Your task to perform on an android device: open app "AliExpress" Image 0: 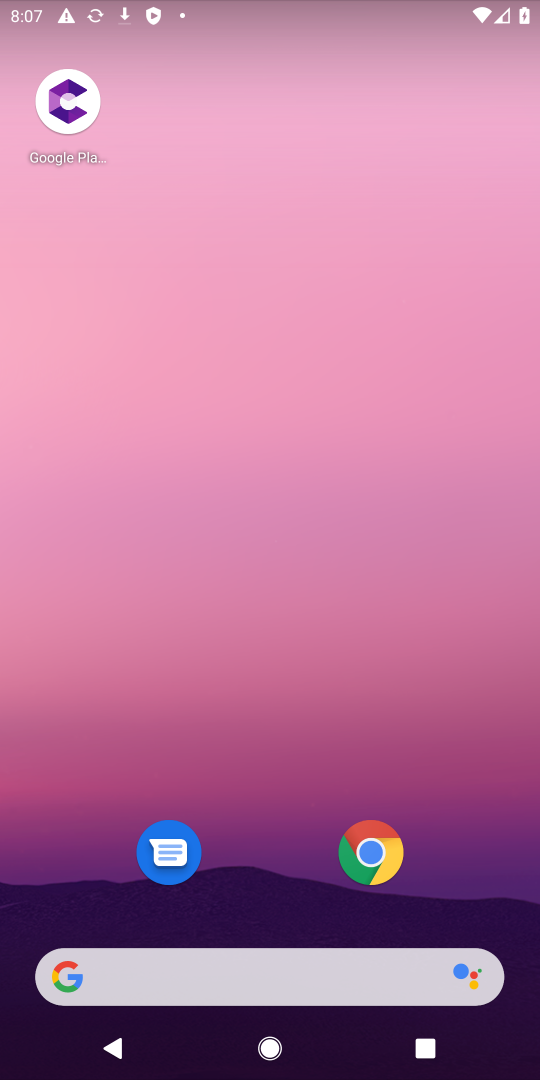
Step 0: click (349, 862)
Your task to perform on an android device: open app "AliExpress" Image 1: 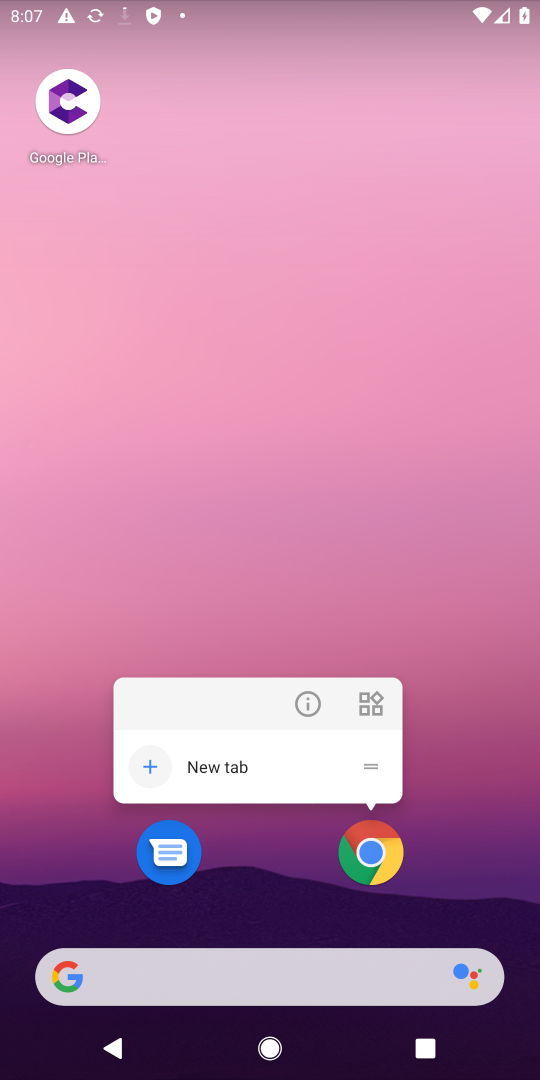
Step 1: drag from (529, 936) to (445, 92)
Your task to perform on an android device: open app "AliExpress" Image 2: 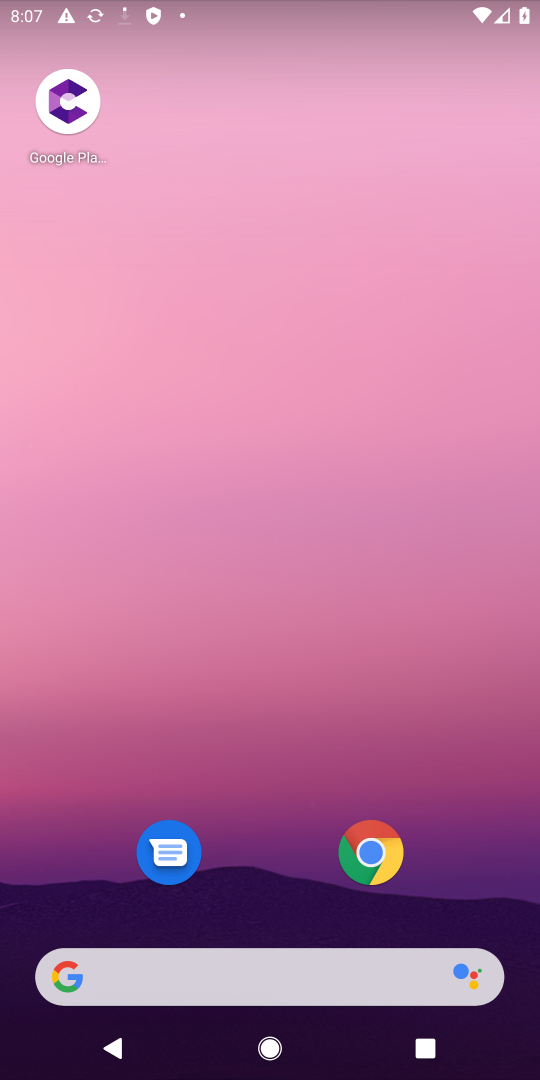
Step 2: drag from (474, 928) to (445, 24)
Your task to perform on an android device: open app "AliExpress" Image 3: 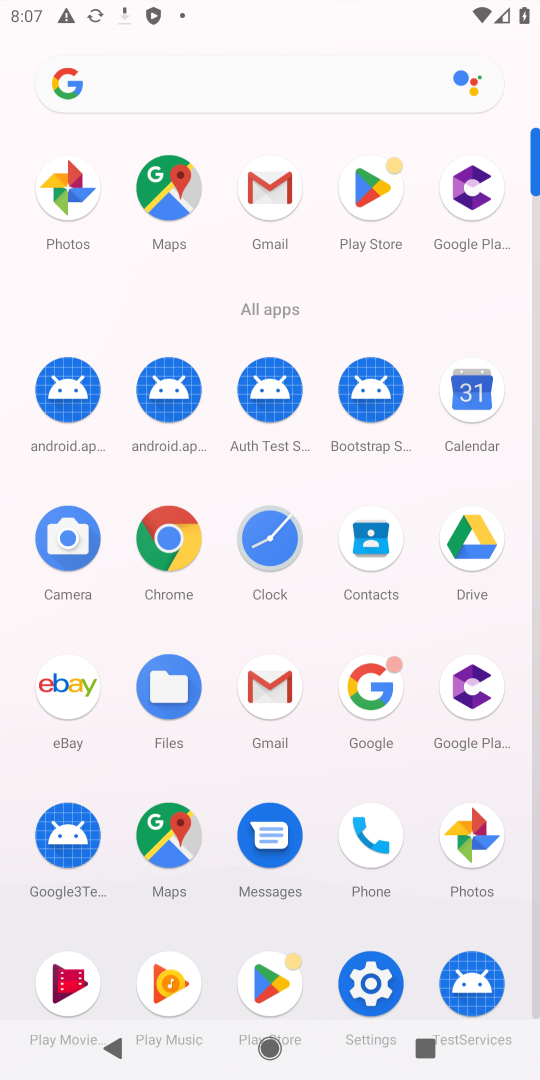
Step 3: click (380, 173)
Your task to perform on an android device: open app "AliExpress" Image 4: 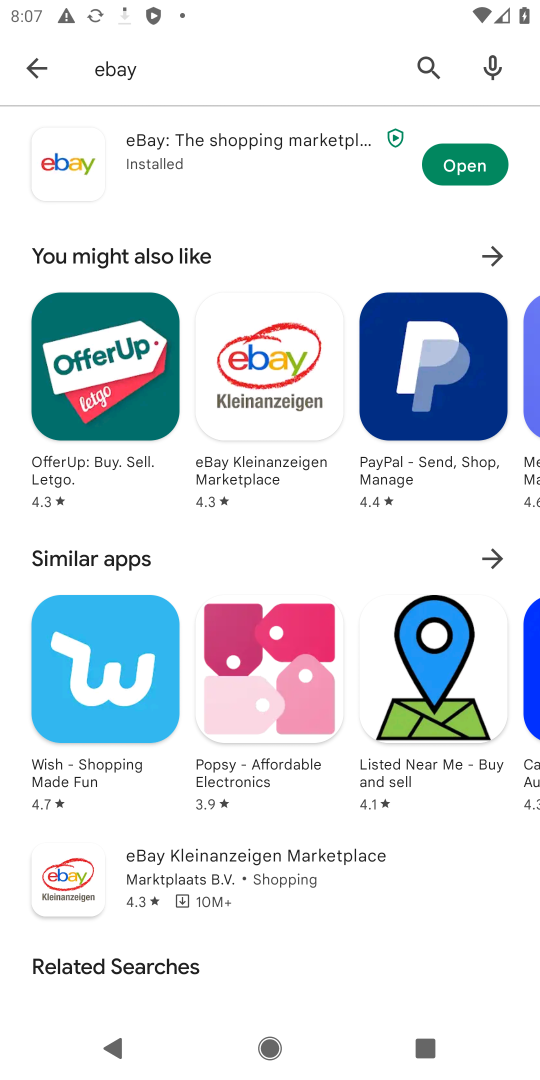
Step 4: click (430, 73)
Your task to perform on an android device: open app "AliExpress" Image 5: 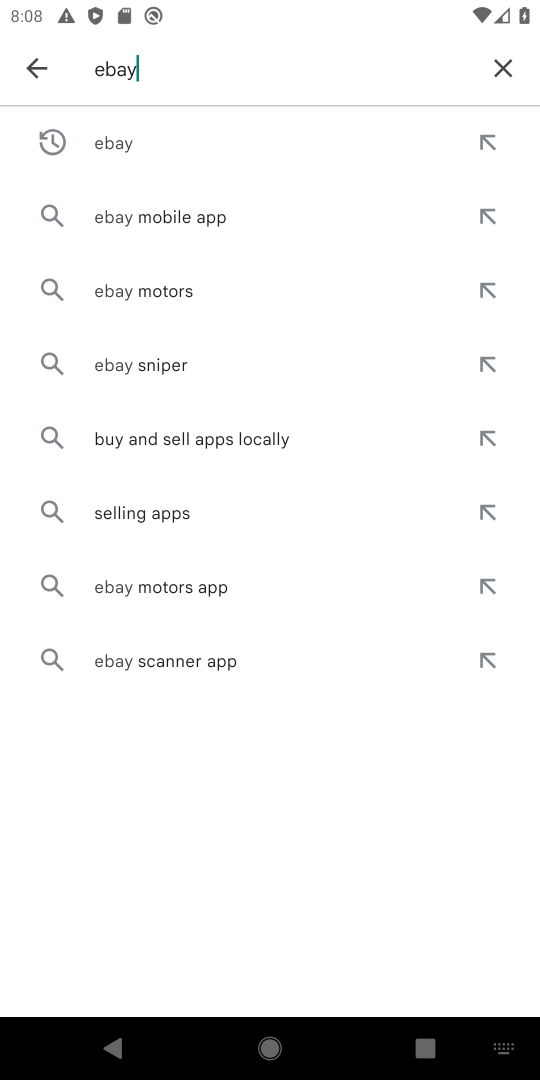
Step 5: type "AliExpress"
Your task to perform on an android device: open app "AliExpress" Image 6: 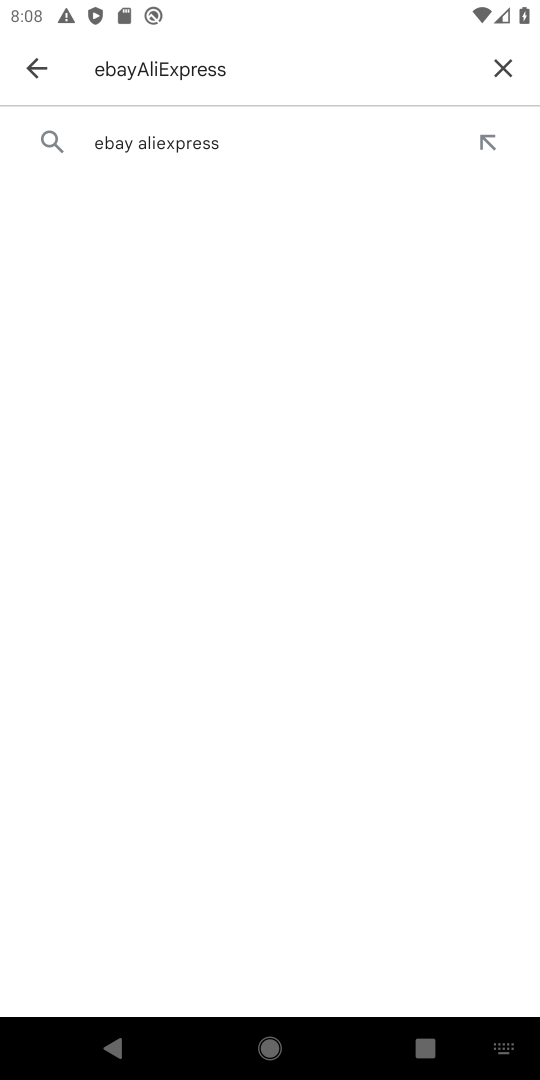
Step 6: click (502, 68)
Your task to perform on an android device: open app "AliExpress" Image 7: 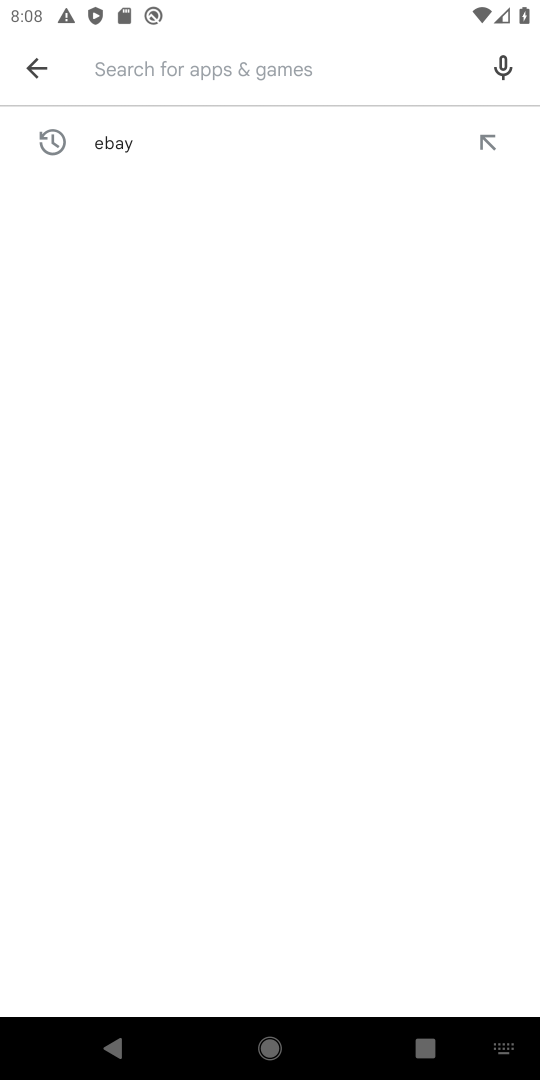
Step 7: type "Aliexpress"
Your task to perform on an android device: open app "AliExpress" Image 8: 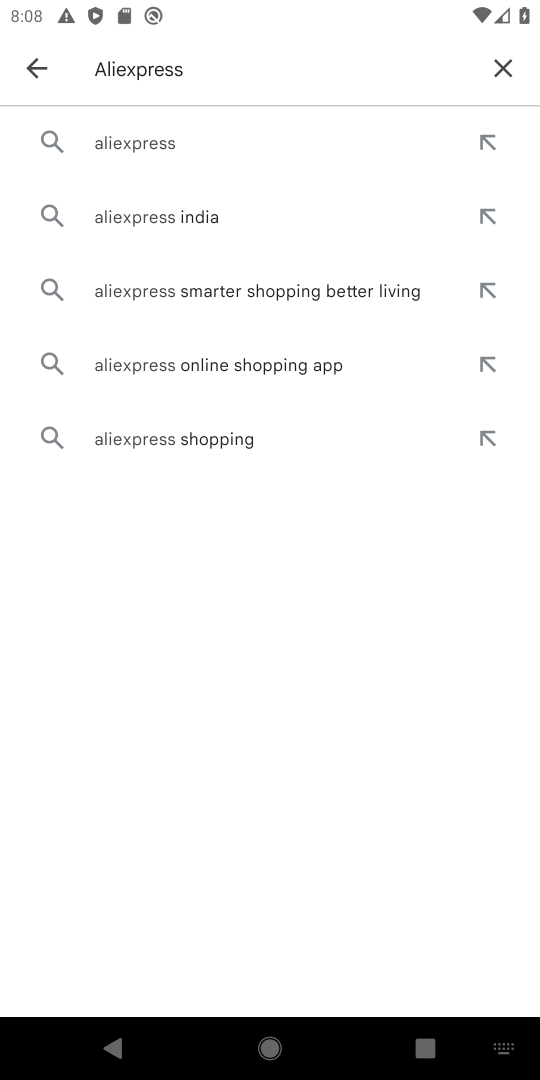
Step 8: click (165, 162)
Your task to perform on an android device: open app "AliExpress" Image 9: 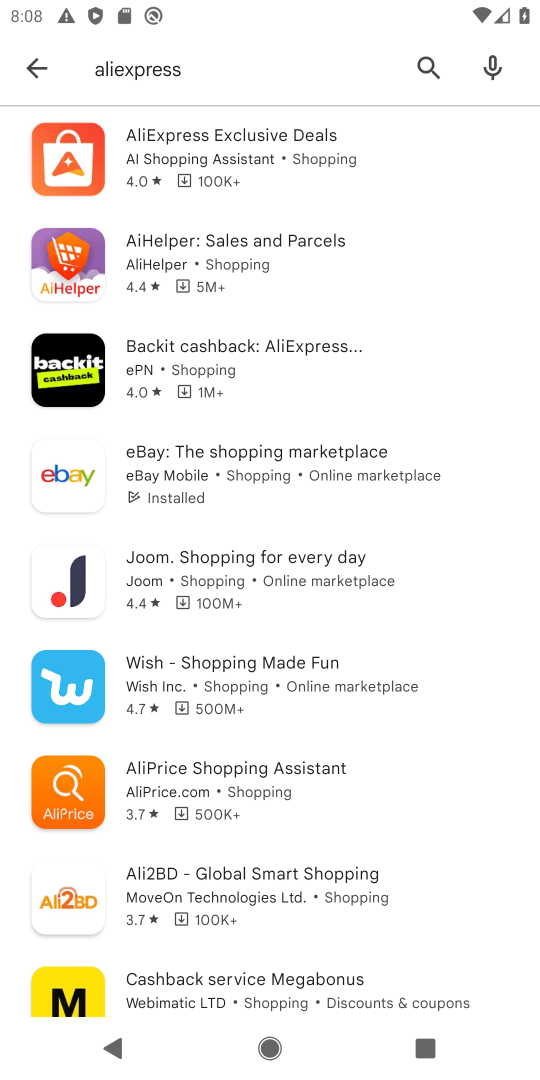
Step 9: task complete